Your task to perform on an android device: add a contact Image 0: 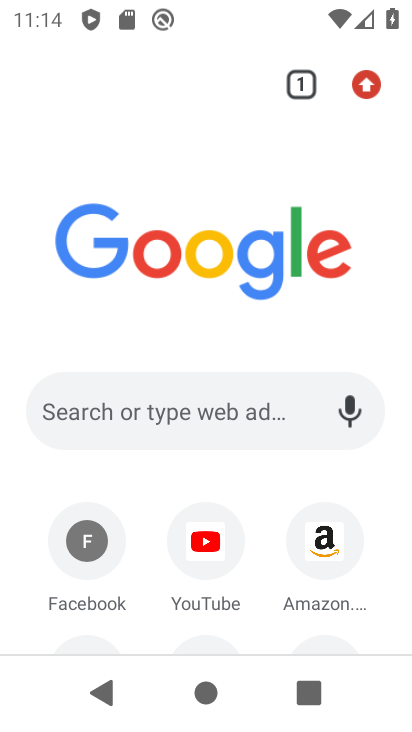
Step 0: press home button
Your task to perform on an android device: add a contact Image 1: 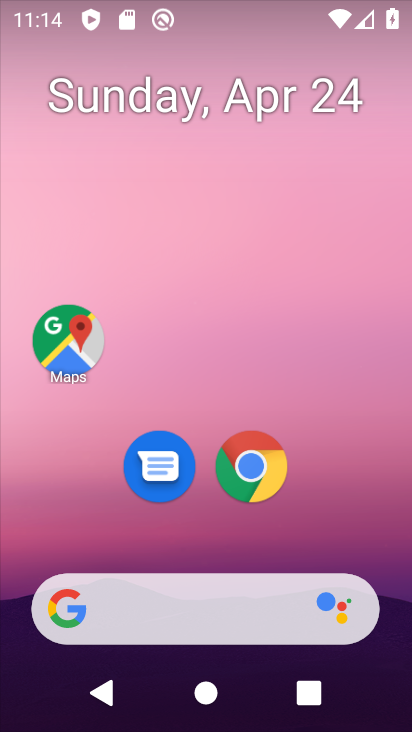
Step 1: drag from (310, 442) to (266, 48)
Your task to perform on an android device: add a contact Image 2: 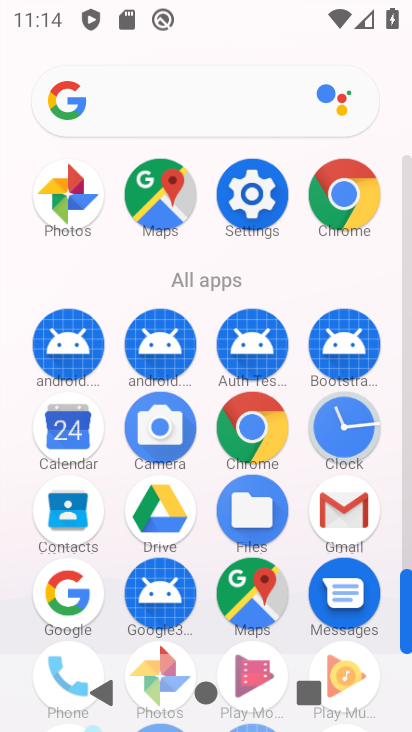
Step 2: drag from (184, 260) to (181, 86)
Your task to perform on an android device: add a contact Image 3: 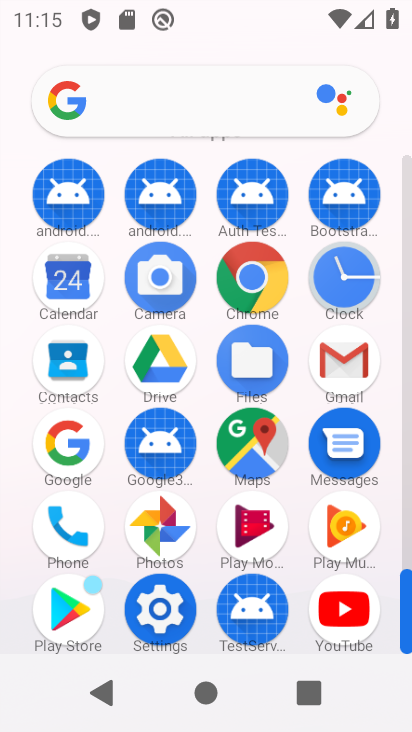
Step 3: drag from (199, 542) to (170, 234)
Your task to perform on an android device: add a contact Image 4: 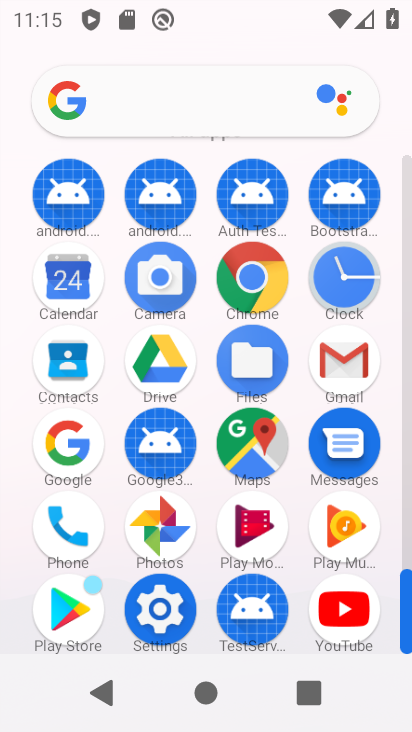
Step 4: click (62, 391)
Your task to perform on an android device: add a contact Image 5: 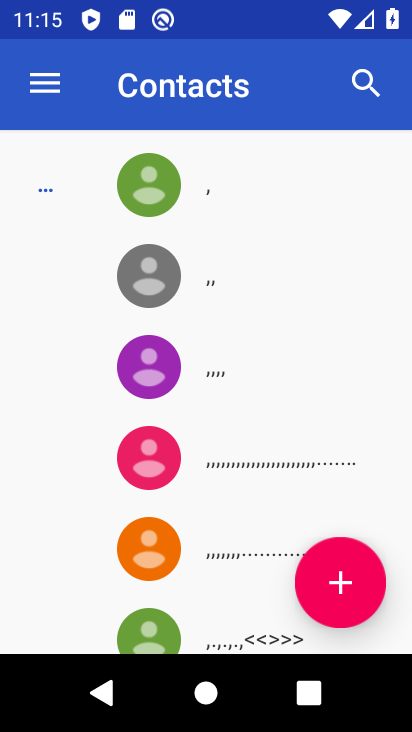
Step 5: click (309, 577)
Your task to perform on an android device: add a contact Image 6: 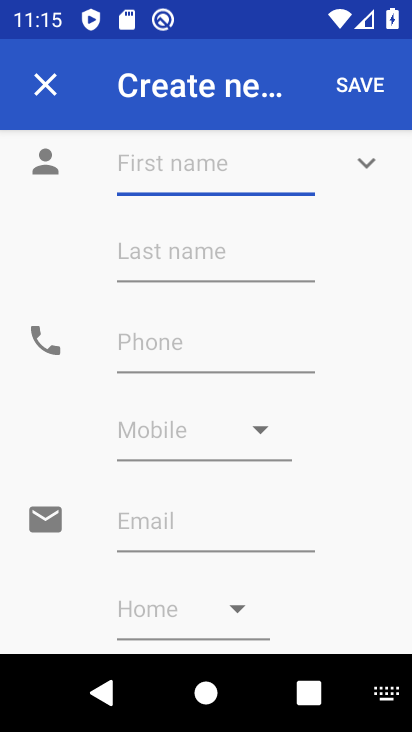
Step 6: type "vvvvvv"
Your task to perform on an android device: add a contact Image 7: 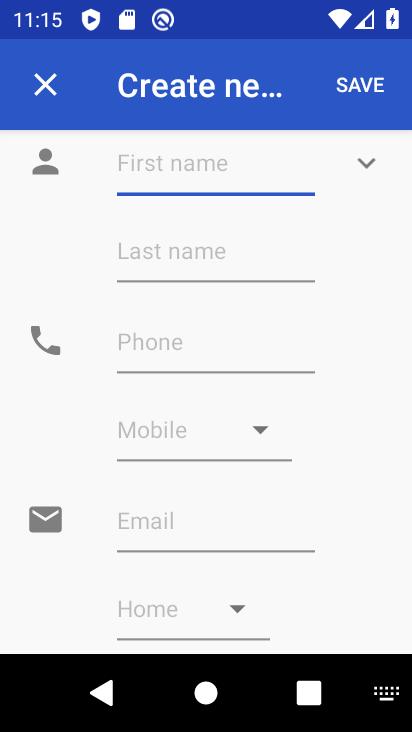
Step 7: click (165, 347)
Your task to perform on an android device: add a contact Image 8: 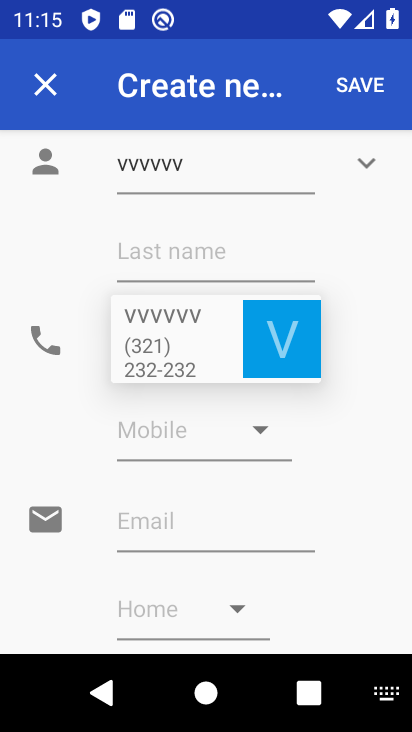
Step 8: type "5643646465"
Your task to perform on an android device: add a contact Image 9: 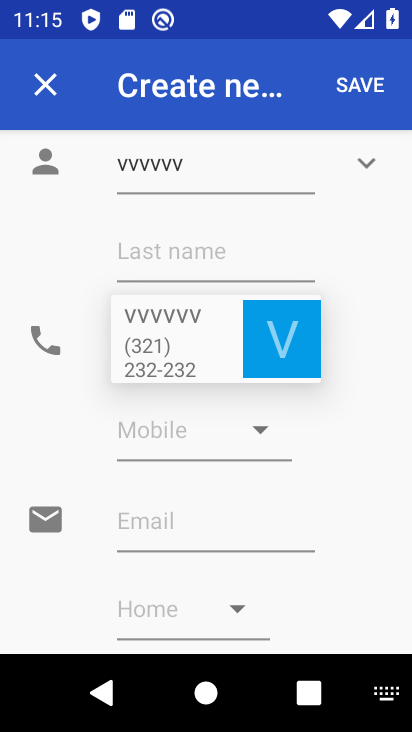
Step 9: click (375, 74)
Your task to perform on an android device: add a contact Image 10: 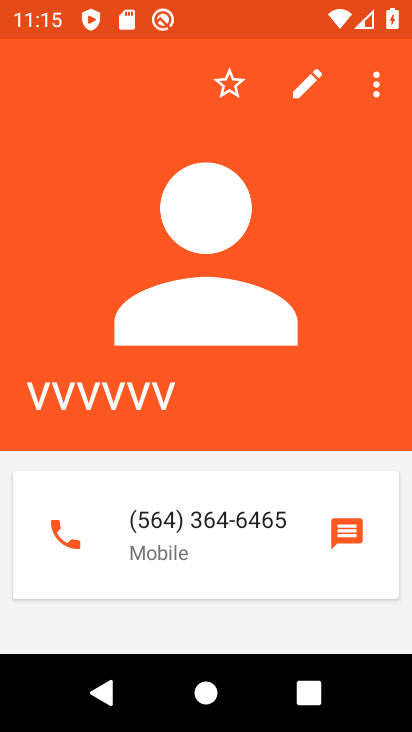
Step 10: task complete